Your task to perform on an android device: check android version Image 0: 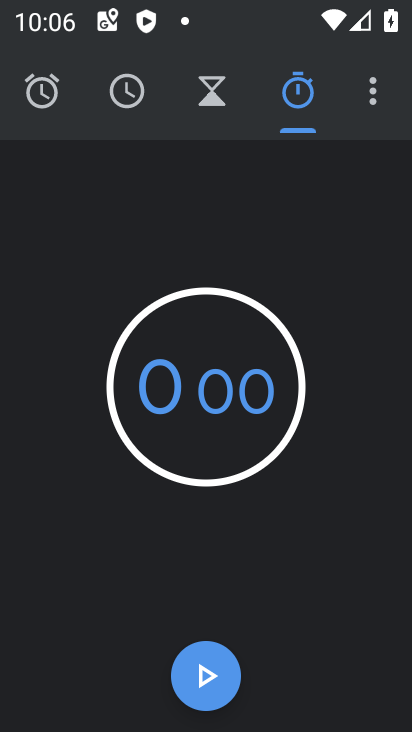
Step 0: press home button
Your task to perform on an android device: check android version Image 1: 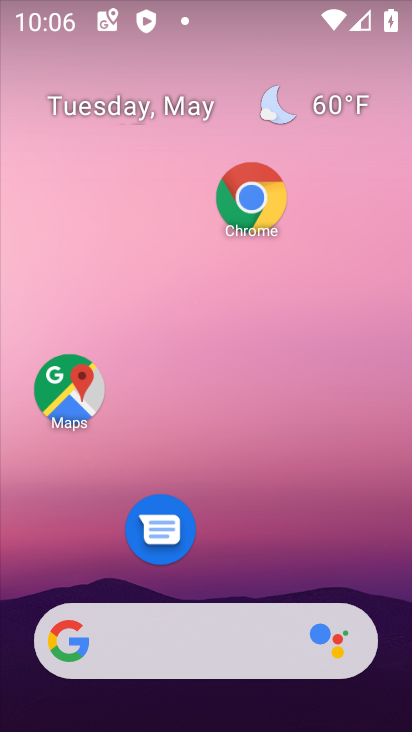
Step 1: drag from (213, 608) to (286, 197)
Your task to perform on an android device: check android version Image 2: 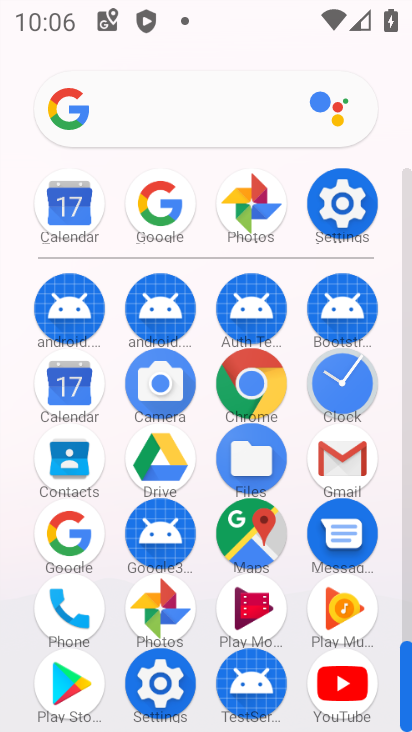
Step 2: click (345, 204)
Your task to perform on an android device: check android version Image 3: 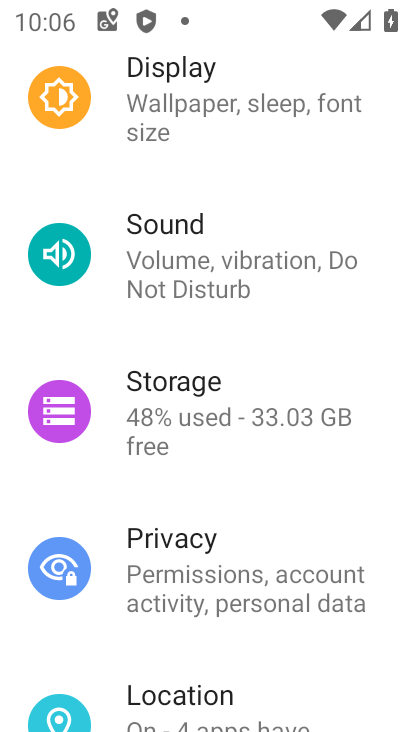
Step 3: drag from (156, 715) to (189, 319)
Your task to perform on an android device: check android version Image 4: 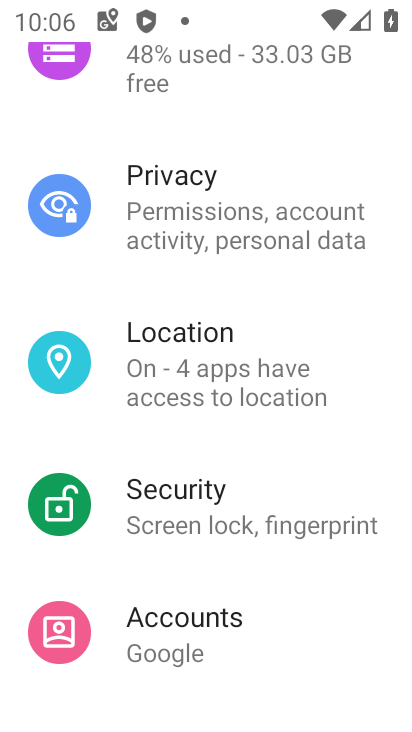
Step 4: drag from (206, 513) to (219, 180)
Your task to perform on an android device: check android version Image 5: 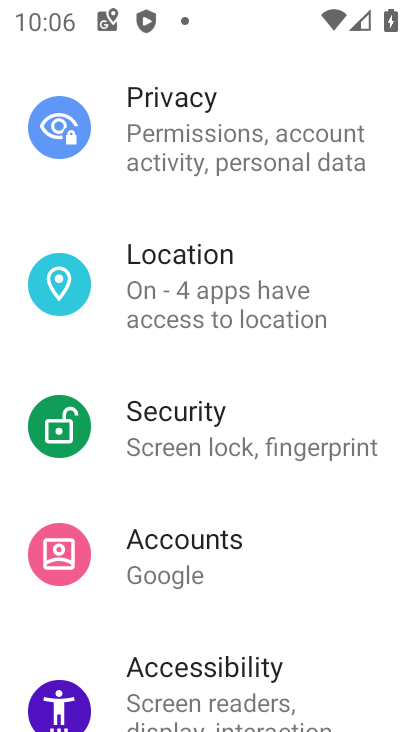
Step 5: drag from (211, 676) to (232, 263)
Your task to perform on an android device: check android version Image 6: 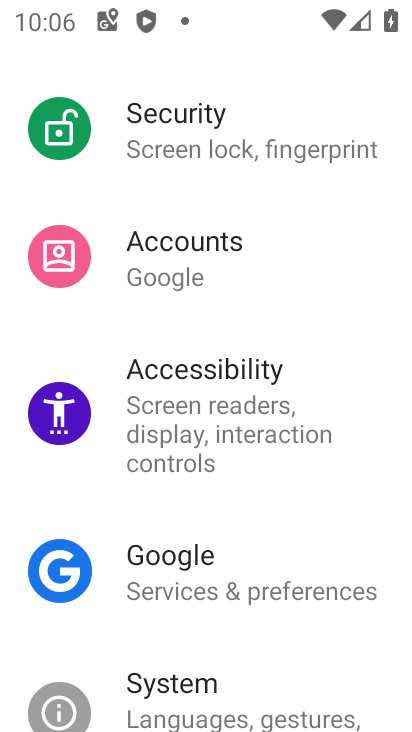
Step 6: drag from (220, 550) to (336, 228)
Your task to perform on an android device: check android version Image 7: 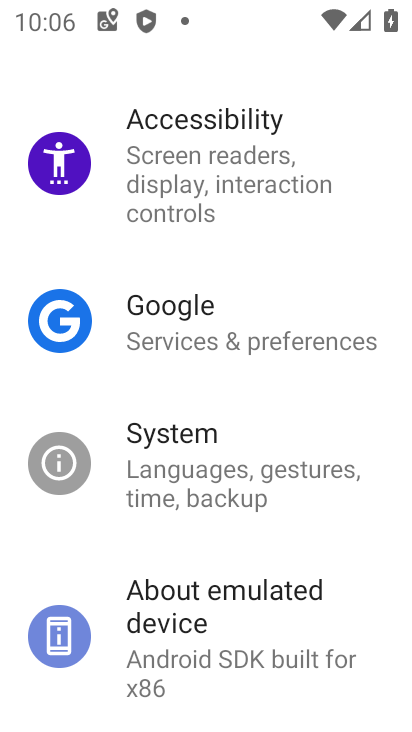
Step 7: click (251, 640)
Your task to perform on an android device: check android version Image 8: 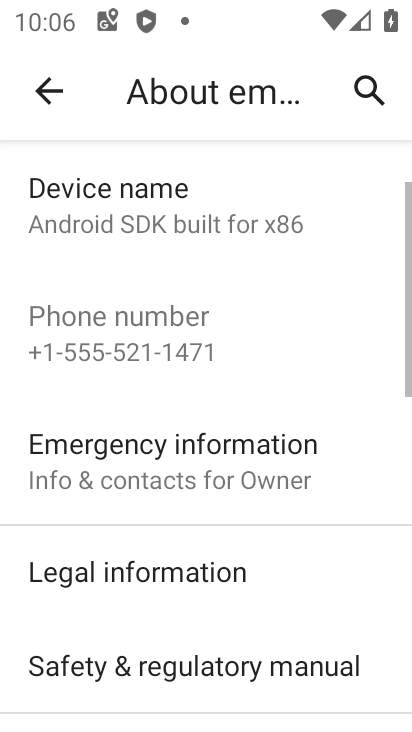
Step 8: task complete